Your task to perform on an android device: Search for pizza restaurants on Maps Image 0: 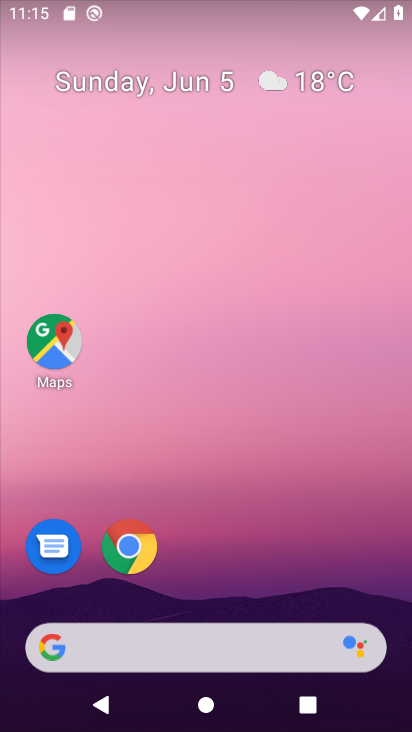
Step 0: click (66, 356)
Your task to perform on an android device: Search for pizza restaurants on Maps Image 1: 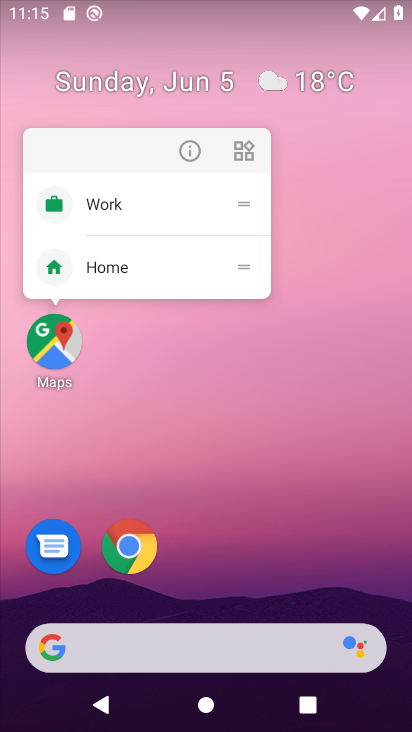
Step 1: click (52, 349)
Your task to perform on an android device: Search for pizza restaurants on Maps Image 2: 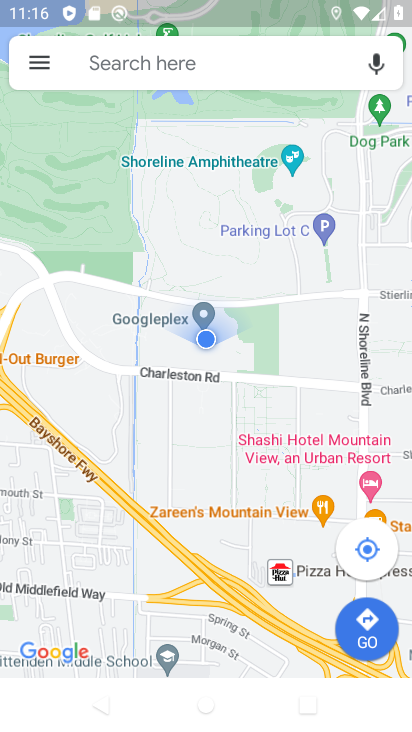
Step 2: click (168, 70)
Your task to perform on an android device: Search for pizza restaurants on Maps Image 3: 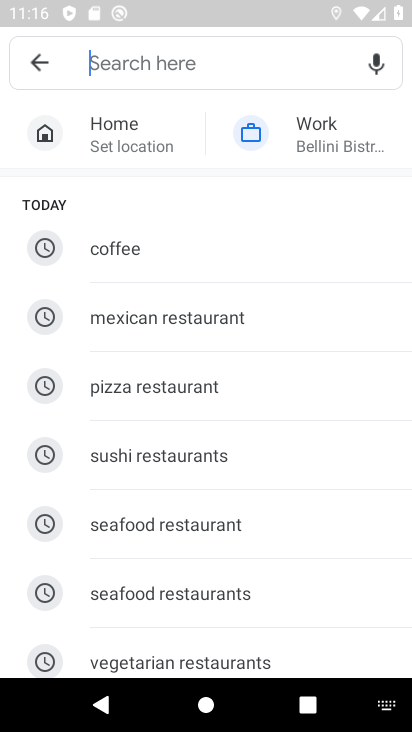
Step 3: click (142, 372)
Your task to perform on an android device: Search for pizza restaurants on Maps Image 4: 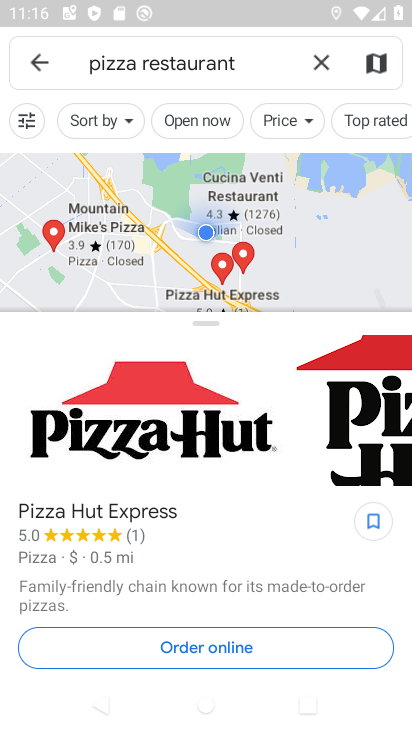
Step 4: task complete